Your task to perform on an android device: Show the shopping cart on target.com. Image 0: 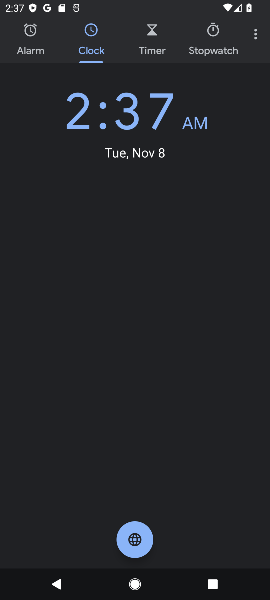
Step 0: press home button
Your task to perform on an android device: Show the shopping cart on target.com. Image 1: 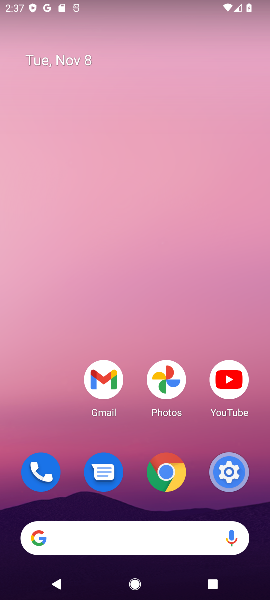
Step 1: click (129, 544)
Your task to perform on an android device: Show the shopping cart on target.com. Image 2: 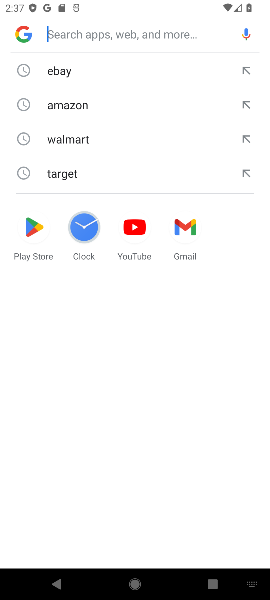
Step 2: click (64, 167)
Your task to perform on an android device: Show the shopping cart on target.com. Image 3: 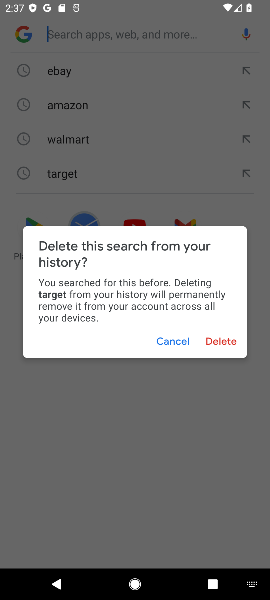
Step 3: click (180, 346)
Your task to perform on an android device: Show the shopping cart on target.com. Image 4: 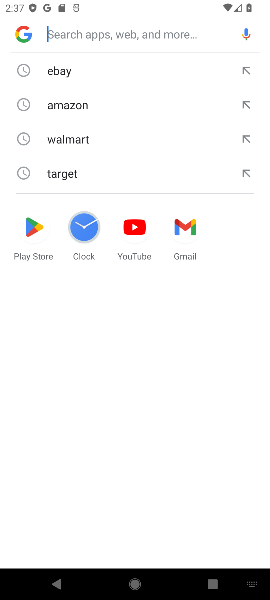
Step 4: click (119, 174)
Your task to perform on an android device: Show the shopping cart on target.com. Image 5: 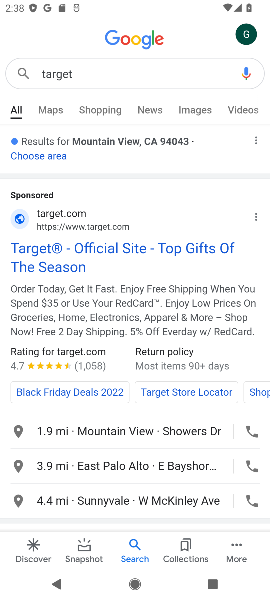
Step 5: click (117, 243)
Your task to perform on an android device: Show the shopping cart on target.com. Image 6: 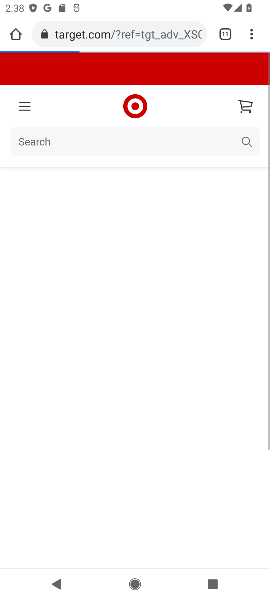
Step 6: task complete